Your task to perform on an android device: delete browsing data in the chrome app Image 0: 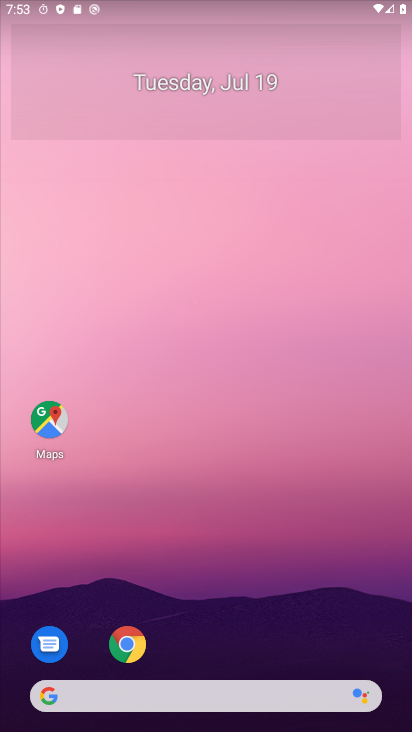
Step 0: click (131, 641)
Your task to perform on an android device: delete browsing data in the chrome app Image 1: 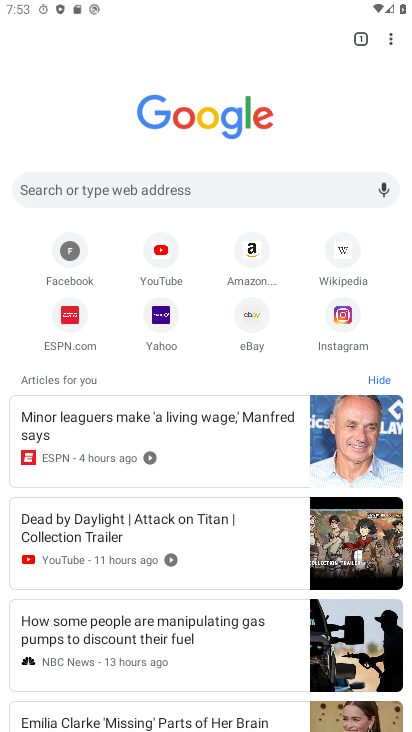
Step 1: click (387, 40)
Your task to perform on an android device: delete browsing data in the chrome app Image 2: 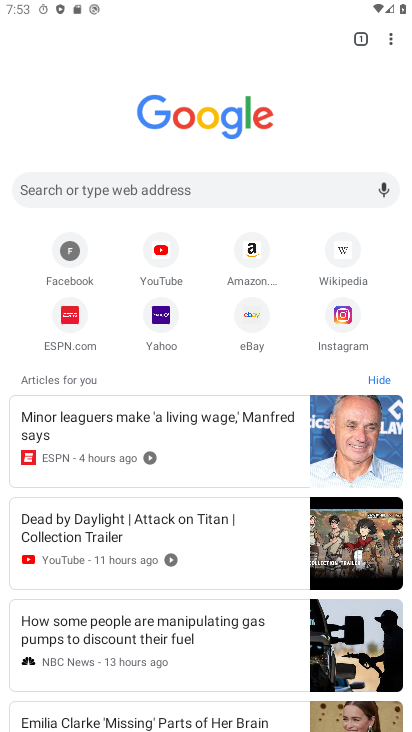
Step 2: click (387, 40)
Your task to perform on an android device: delete browsing data in the chrome app Image 3: 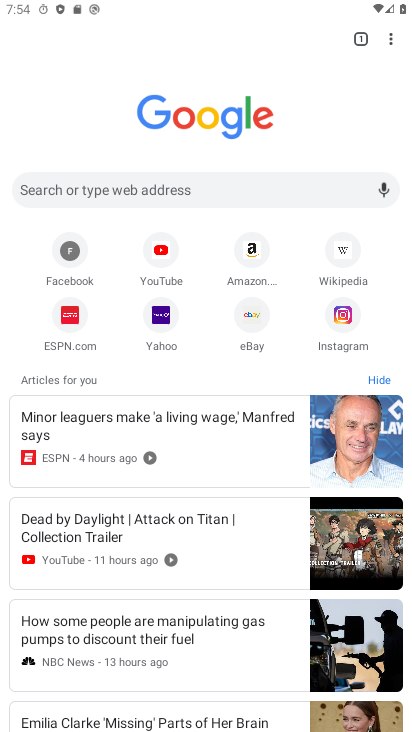
Step 3: click (388, 35)
Your task to perform on an android device: delete browsing data in the chrome app Image 4: 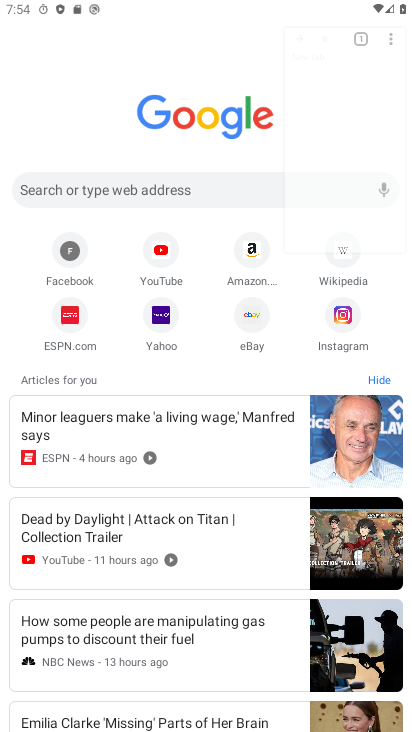
Step 4: click (391, 35)
Your task to perform on an android device: delete browsing data in the chrome app Image 5: 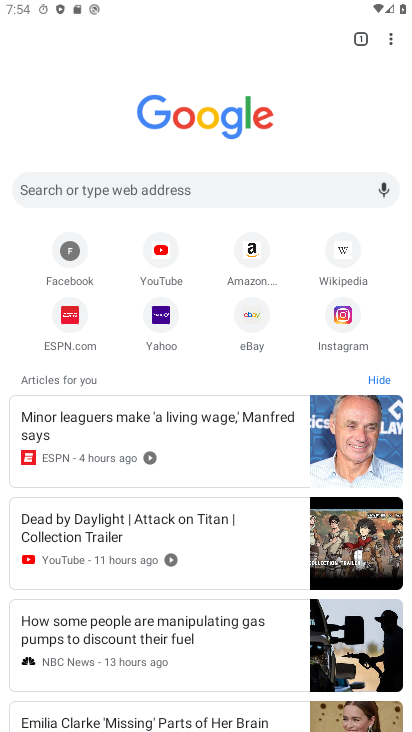
Step 5: click (386, 36)
Your task to perform on an android device: delete browsing data in the chrome app Image 6: 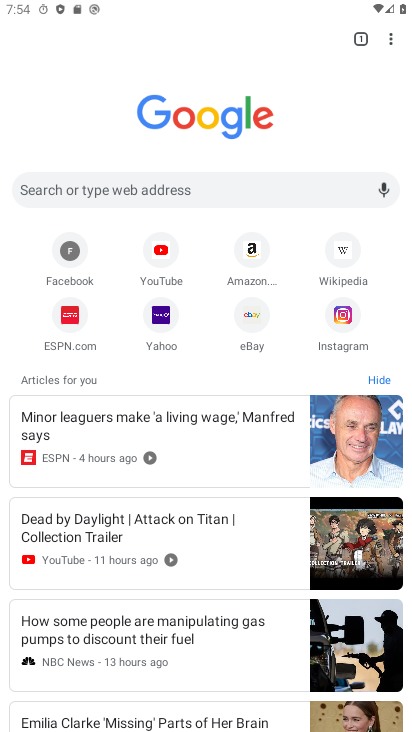
Step 6: task complete